Your task to perform on an android device: move a message to another label in the gmail app Image 0: 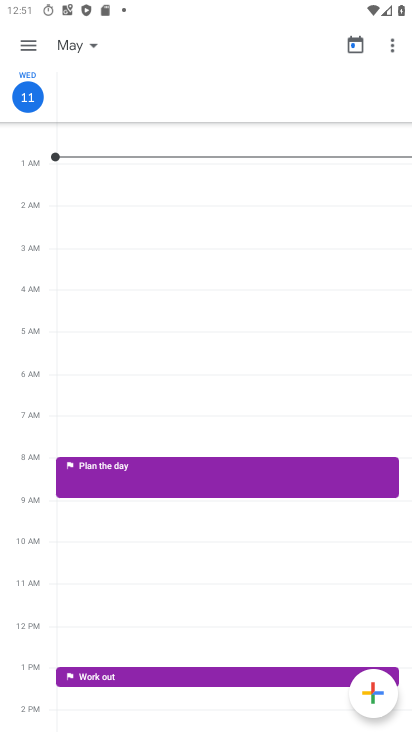
Step 0: press home button
Your task to perform on an android device: move a message to another label in the gmail app Image 1: 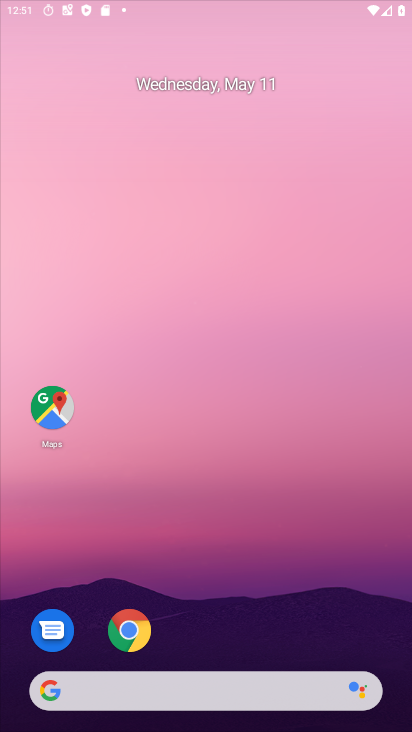
Step 1: drag from (306, 616) to (312, 150)
Your task to perform on an android device: move a message to another label in the gmail app Image 2: 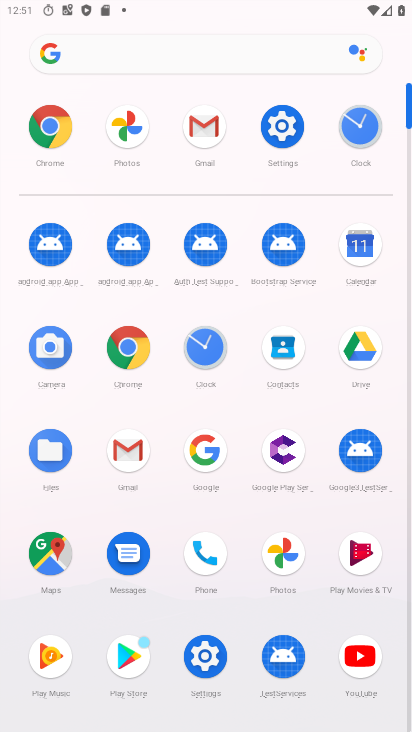
Step 2: click (119, 470)
Your task to perform on an android device: move a message to another label in the gmail app Image 3: 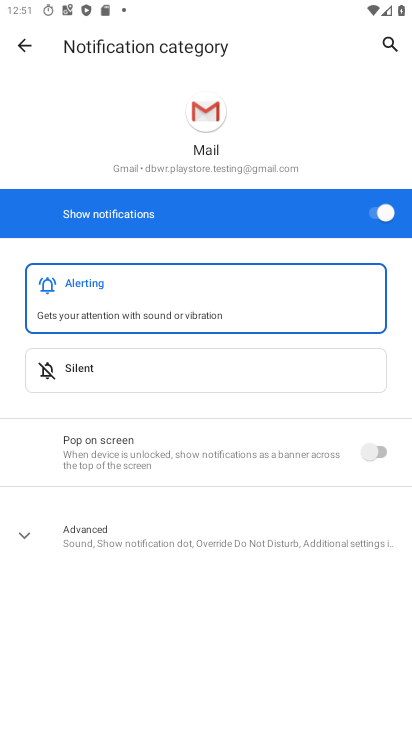
Step 3: click (22, 54)
Your task to perform on an android device: move a message to another label in the gmail app Image 4: 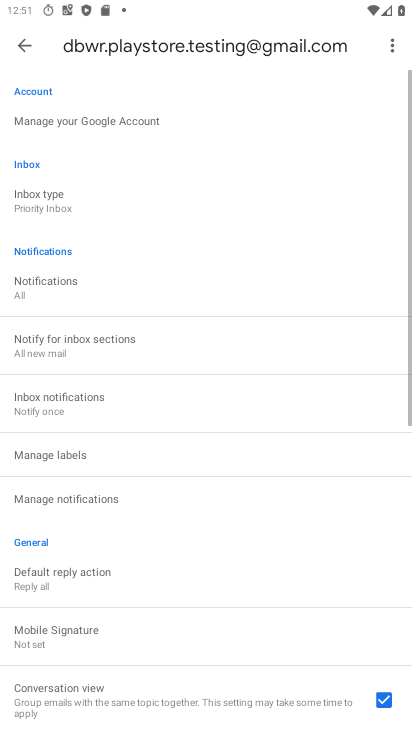
Step 4: click (22, 54)
Your task to perform on an android device: move a message to another label in the gmail app Image 5: 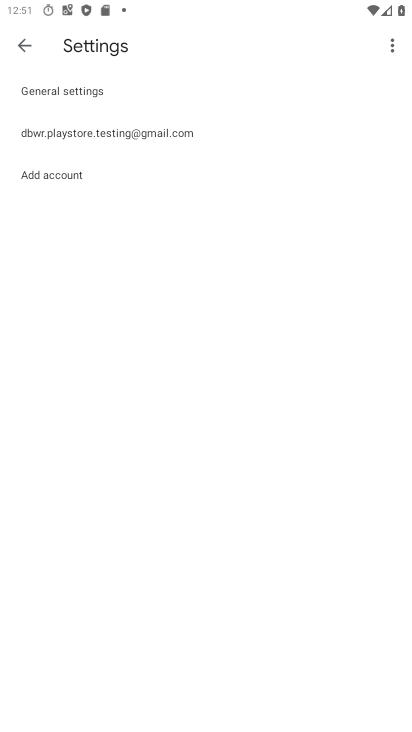
Step 5: click (17, 40)
Your task to perform on an android device: move a message to another label in the gmail app Image 6: 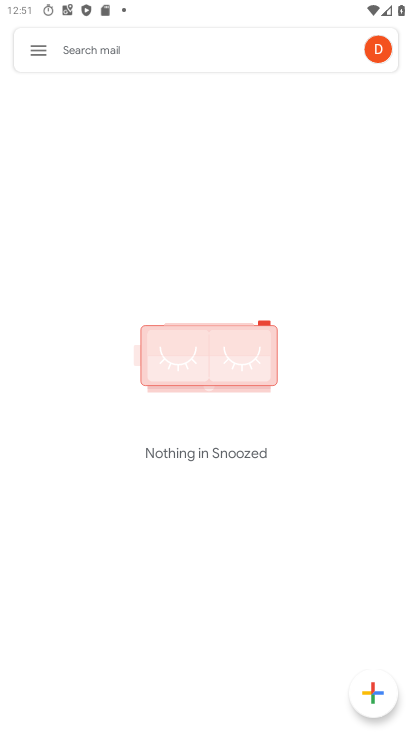
Step 6: click (36, 43)
Your task to perform on an android device: move a message to another label in the gmail app Image 7: 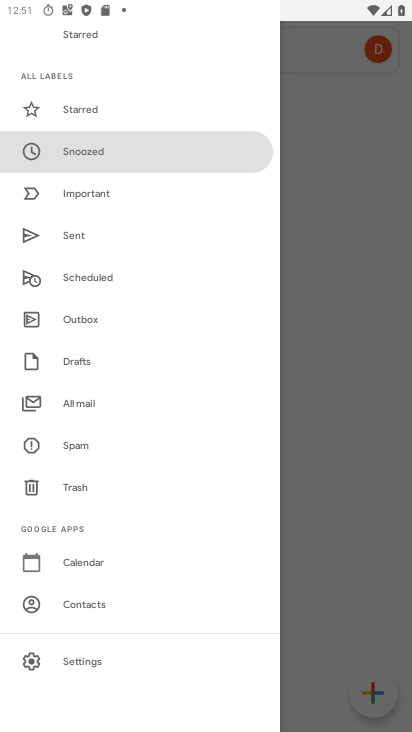
Step 7: click (81, 406)
Your task to perform on an android device: move a message to another label in the gmail app Image 8: 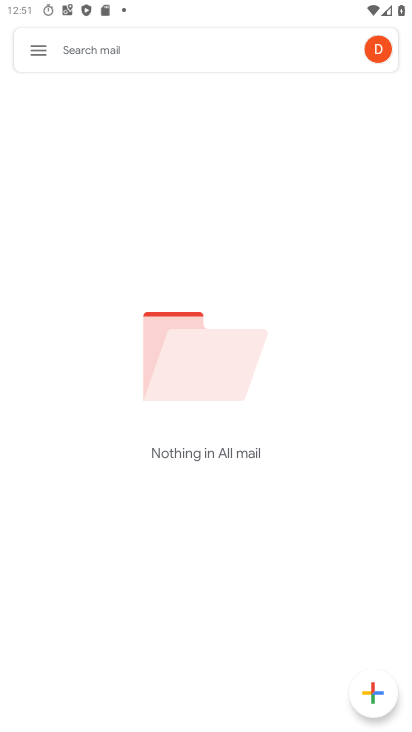
Step 8: task complete